Your task to perform on an android device: What's the weather? Image 0: 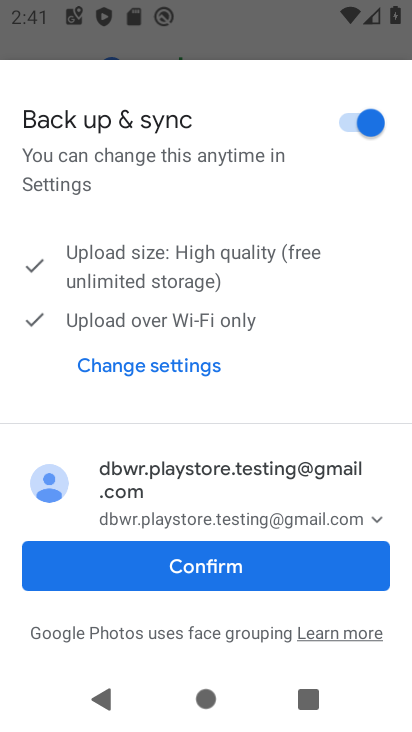
Step 0: press home button
Your task to perform on an android device: What's the weather? Image 1: 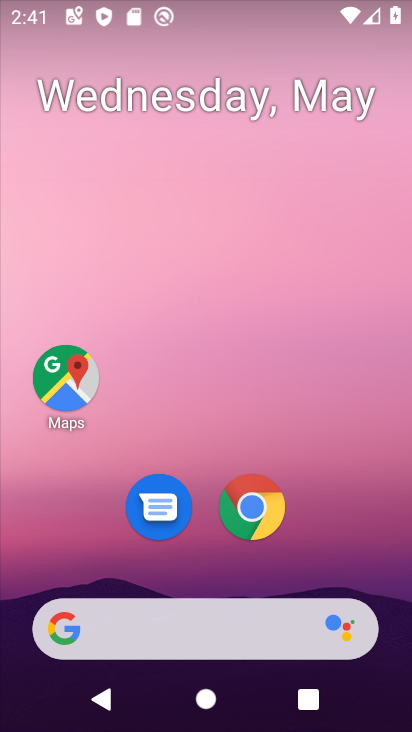
Step 1: click (278, 620)
Your task to perform on an android device: What's the weather? Image 2: 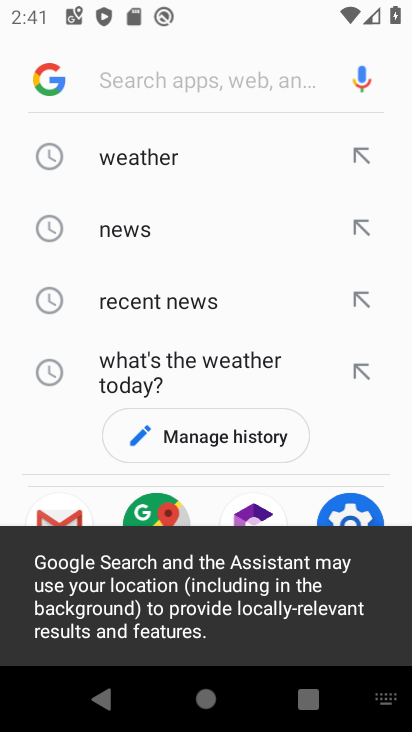
Step 2: click (136, 149)
Your task to perform on an android device: What's the weather? Image 3: 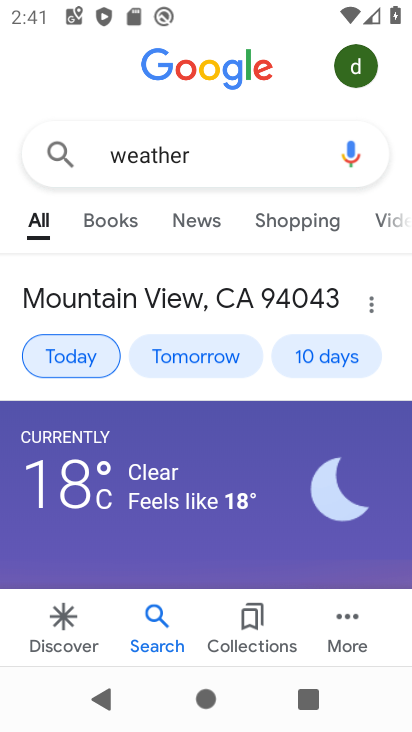
Step 3: task complete